Your task to perform on an android device: change text size in settings app Image 0: 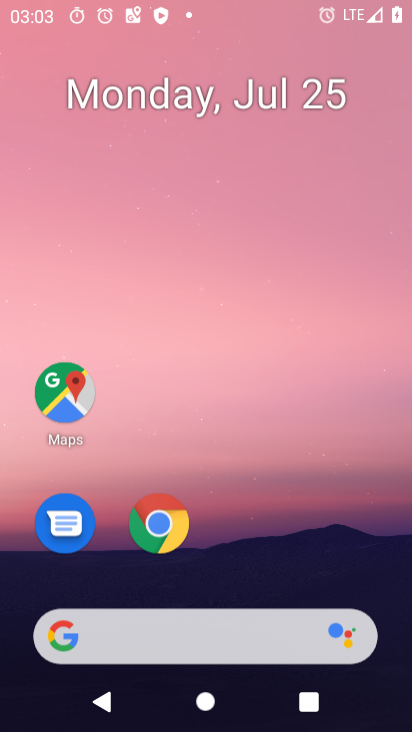
Step 0: press home button
Your task to perform on an android device: change text size in settings app Image 1: 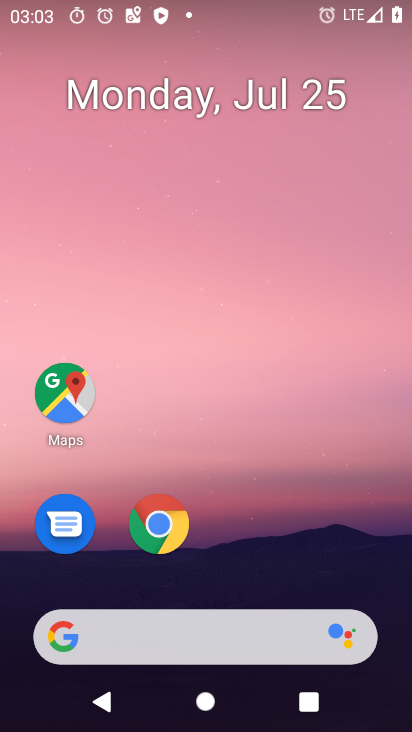
Step 1: drag from (265, 588) to (117, 97)
Your task to perform on an android device: change text size in settings app Image 2: 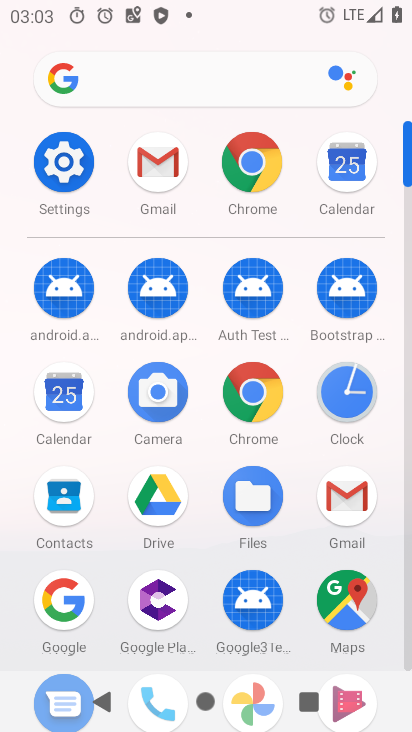
Step 2: click (58, 158)
Your task to perform on an android device: change text size in settings app Image 3: 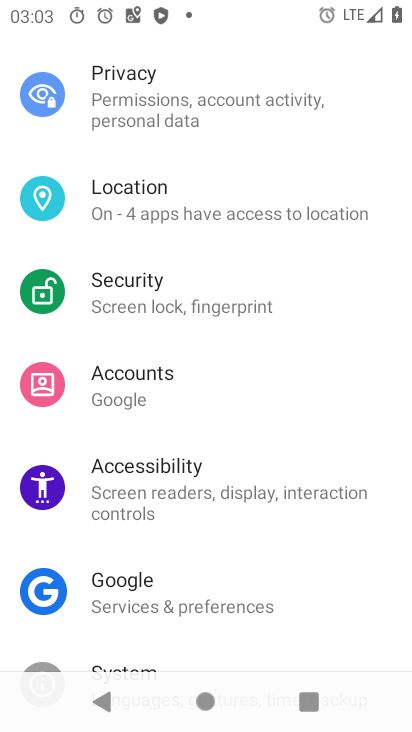
Step 3: drag from (324, 154) to (342, 480)
Your task to perform on an android device: change text size in settings app Image 4: 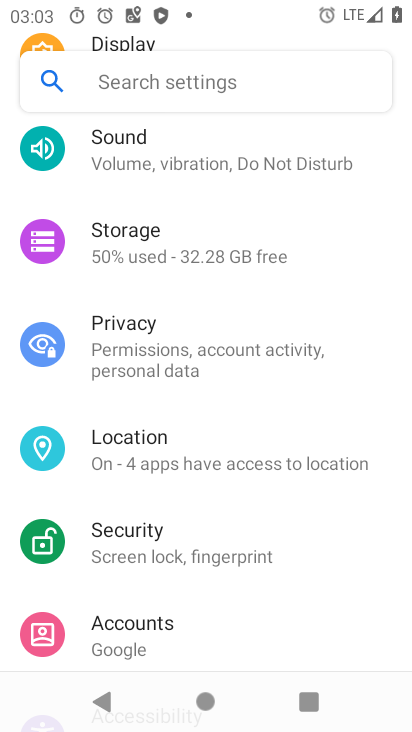
Step 4: drag from (284, 140) to (310, 411)
Your task to perform on an android device: change text size in settings app Image 5: 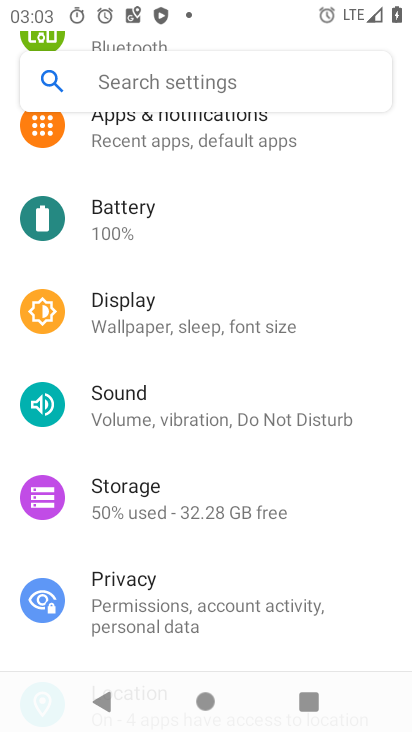
Step 5: click (129, 316)
Your task to perform on an android device: change text size in settings app Image 6: 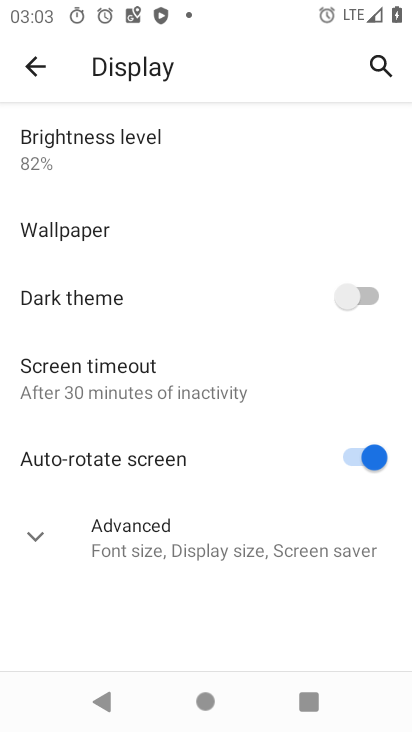
Step 6: click (212, 553)
Your task to perform on an android device: change text size in settings app Image 7: 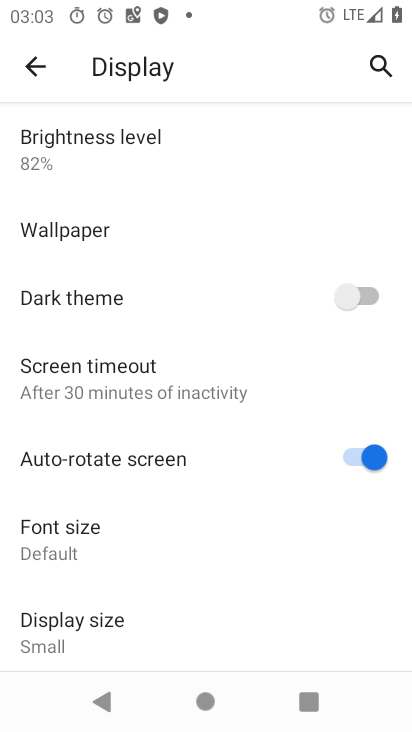
Step 7: click (78, 538)
Your task to perform on an android device: change text size in settings app Image 8: 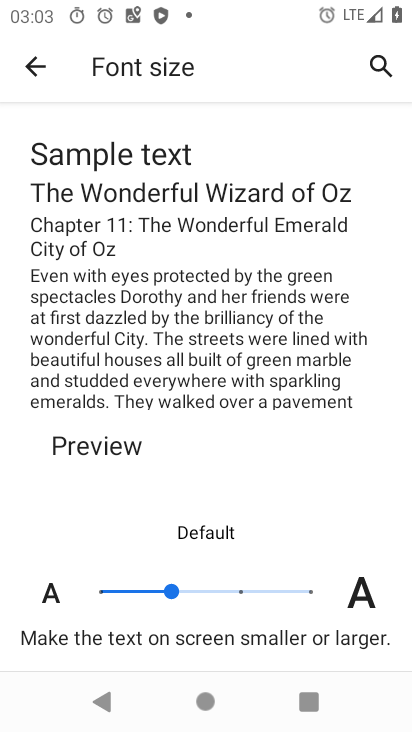
Step 8: click (126, 591)
Your task to perform on an android device: change text size in settings app Image 9: 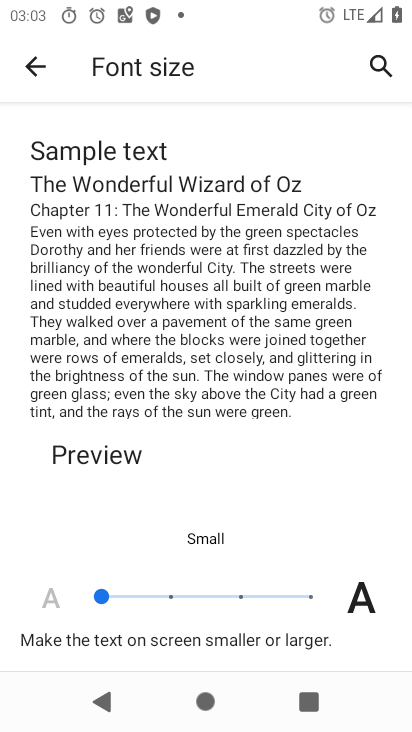
Step 9: click (153, 595)
Your task to perform on an android device: change text size in settings app Image 10: 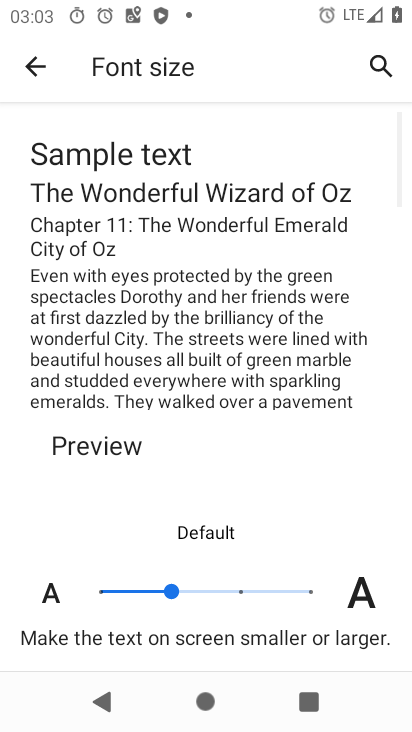
Step 10: click (199, 593)
Your task to perform on an android device: change text size in settings app Image 11: 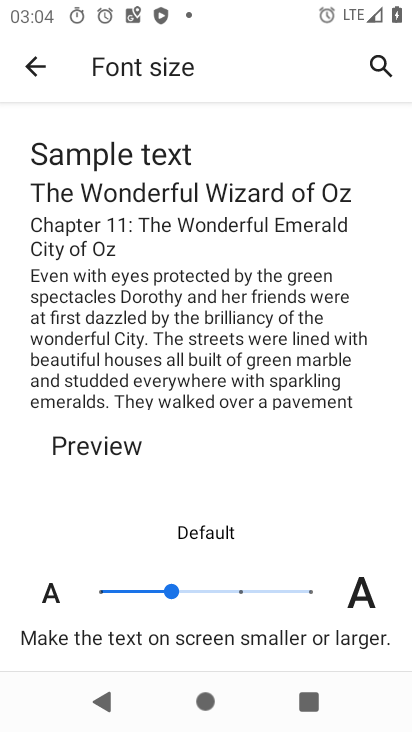
Step 11: click (238, 590)
Your task to perform on an android device: change text size in settings app Image 12: 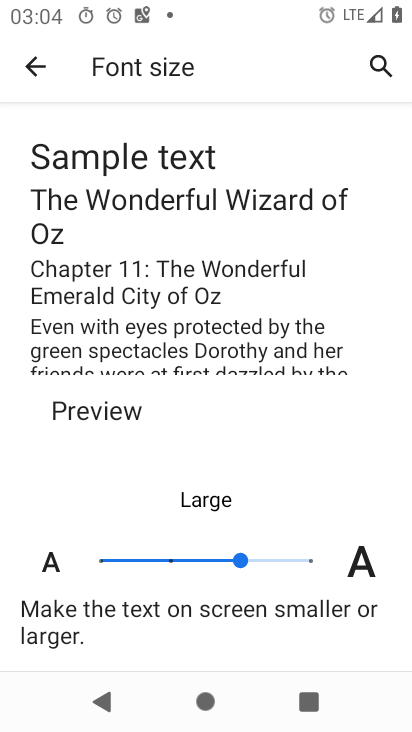
Step 12: task complete